Your task to perform on an android device: turn off location Image 0: 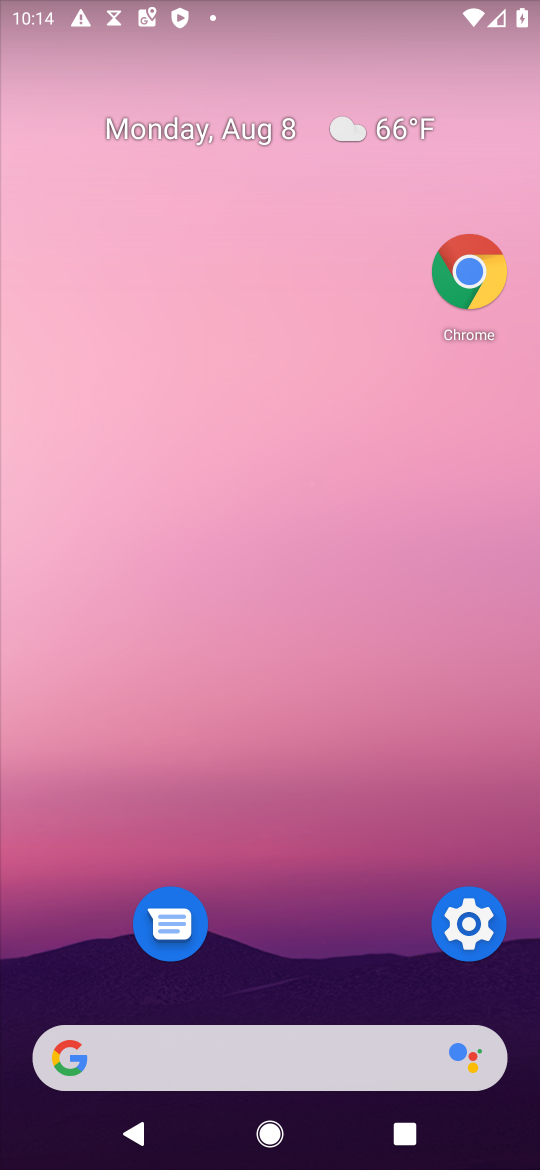
Step 0: press home button
Your task to perform on an android device: turn off location Image 1: 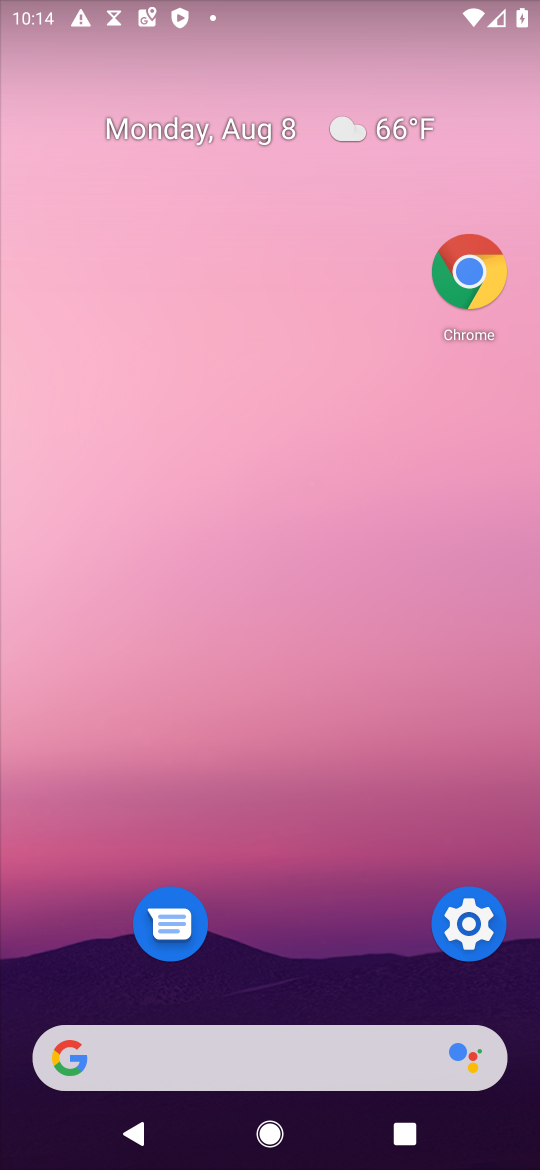
Step 1: click (470, 916)
Your task to perform on an android device: turn off location Image 2: 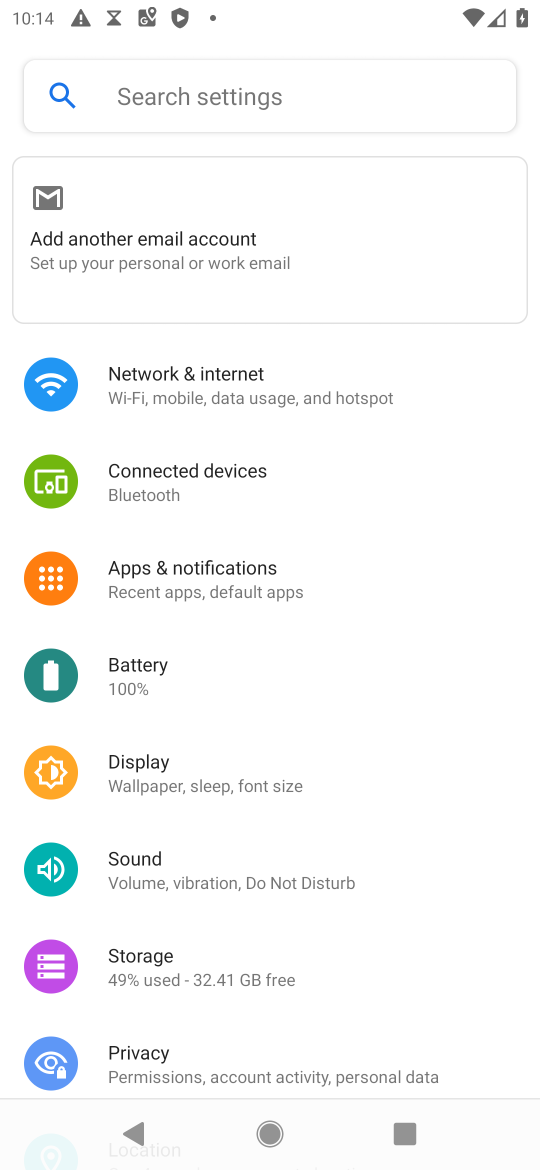
Step 2: drag from (341, 986) to (346, 141)
Your task to perform on an android device: turn off location Image 3: 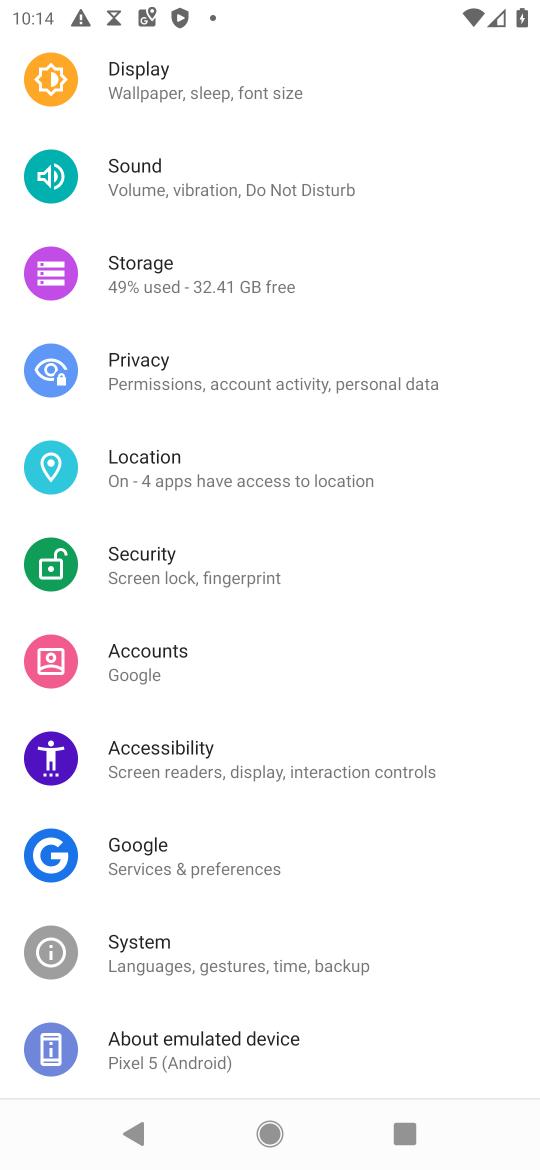
Step 3: click (185, 469)
Your task to perform on an android device: turn off location Image 4: 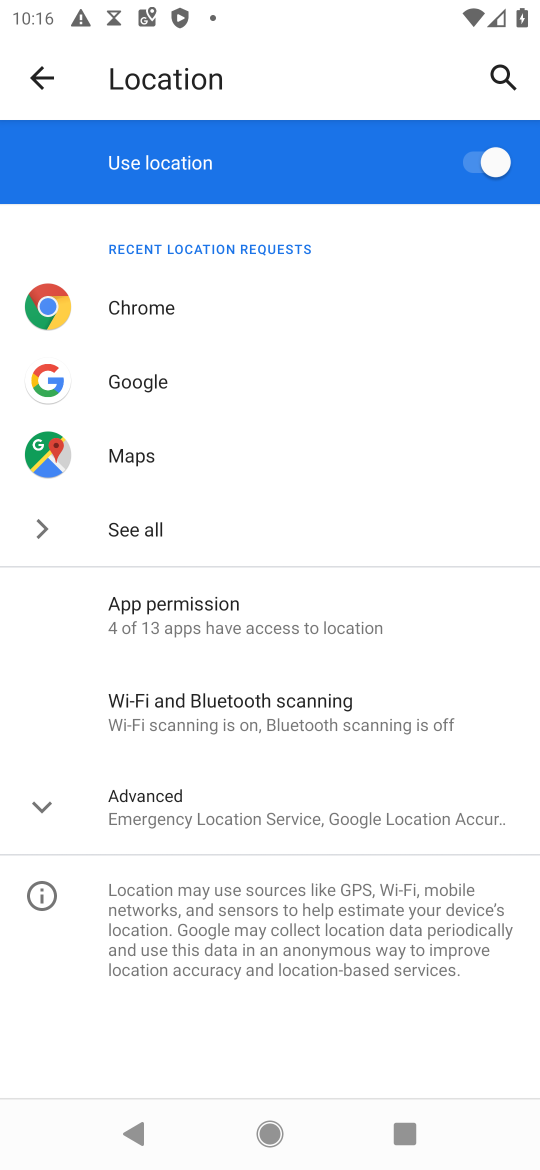
Step 4: click (419, 170)
Your task to perform on an android device: turn off location Image 5: 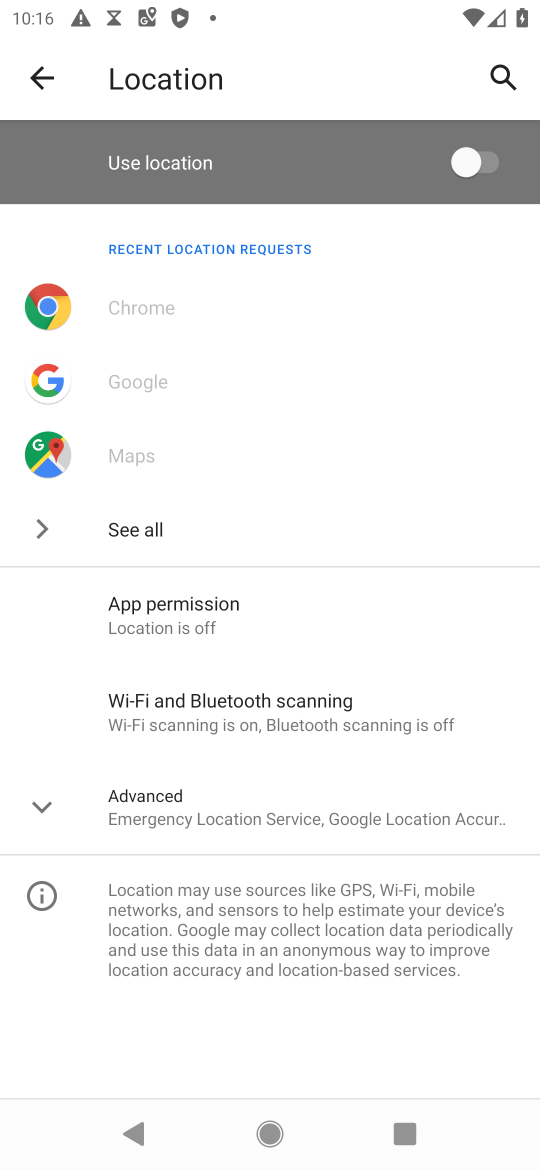
Step 5: task complete